Your task to perform on an android device: Go to settings Image 0: 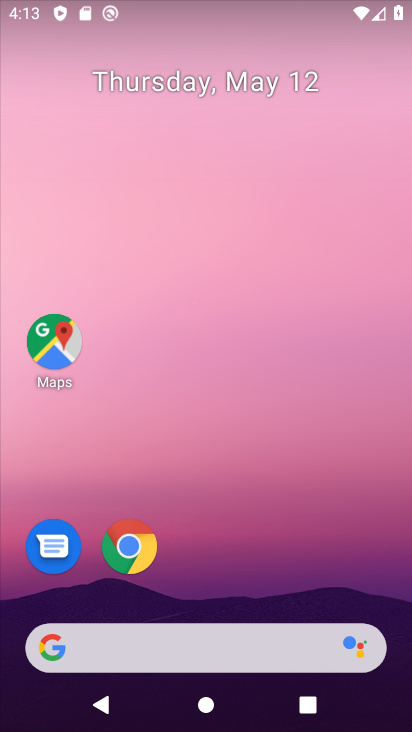
Step 0: drag from (190, 623) to (257, 118)
Your task to perform on an android device: Go to settings Image 1: 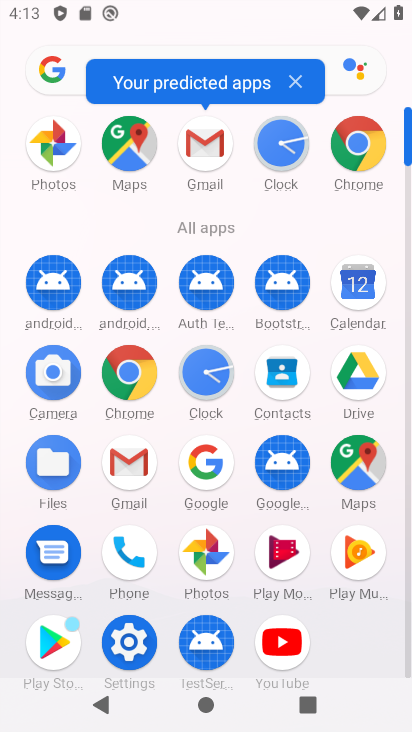
Step 1: click (118, 635)
Your task to perform on an android device: Go to settings Image 2: 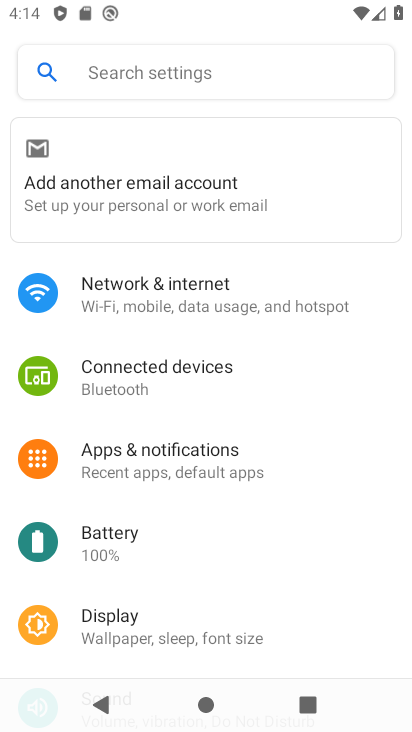
Step 2: task complete